Your task to perform on an android device: Search for Mexican restaurants on Maps Image 0: 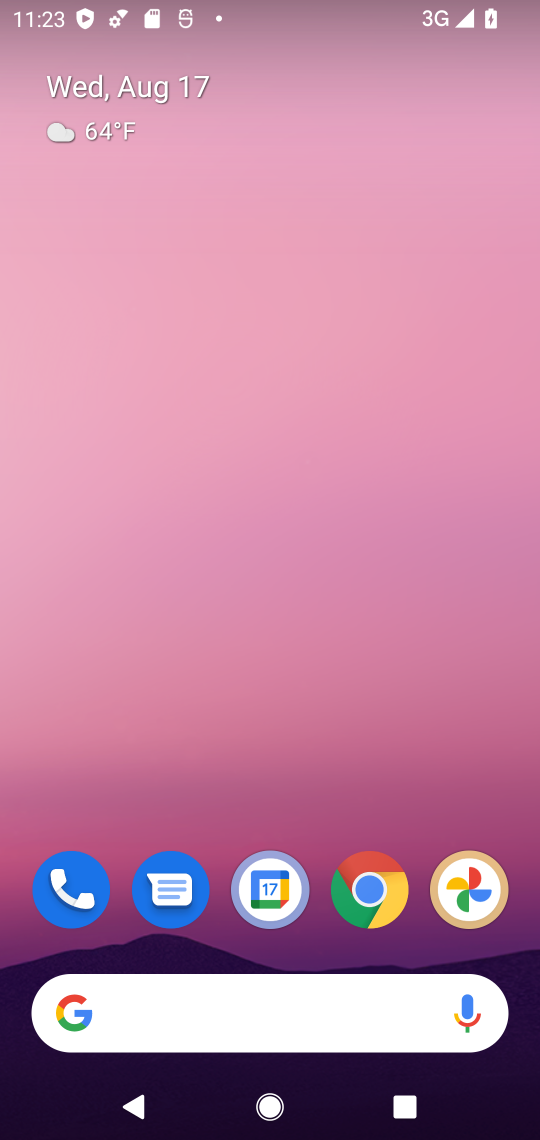
Step 0: drag from (323, 719) to (332, 0)
Your task to perform on an android device: Search for Mexican restaurants on Maps Image 1: 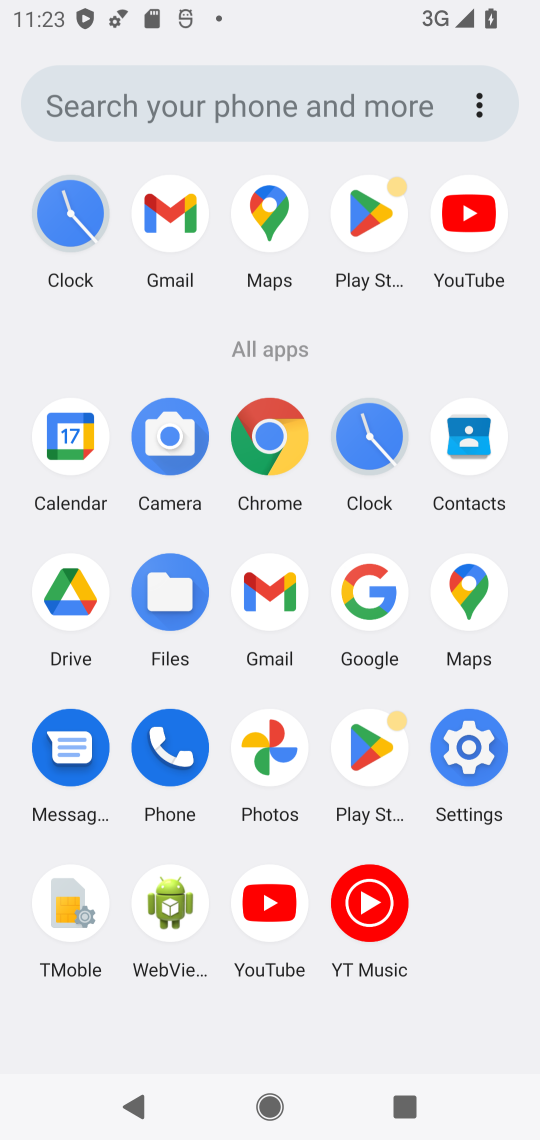
Step 1: click (268, 196)
Your task to perform on an android device: Search for Mexican restaurants on Maps Image 2: 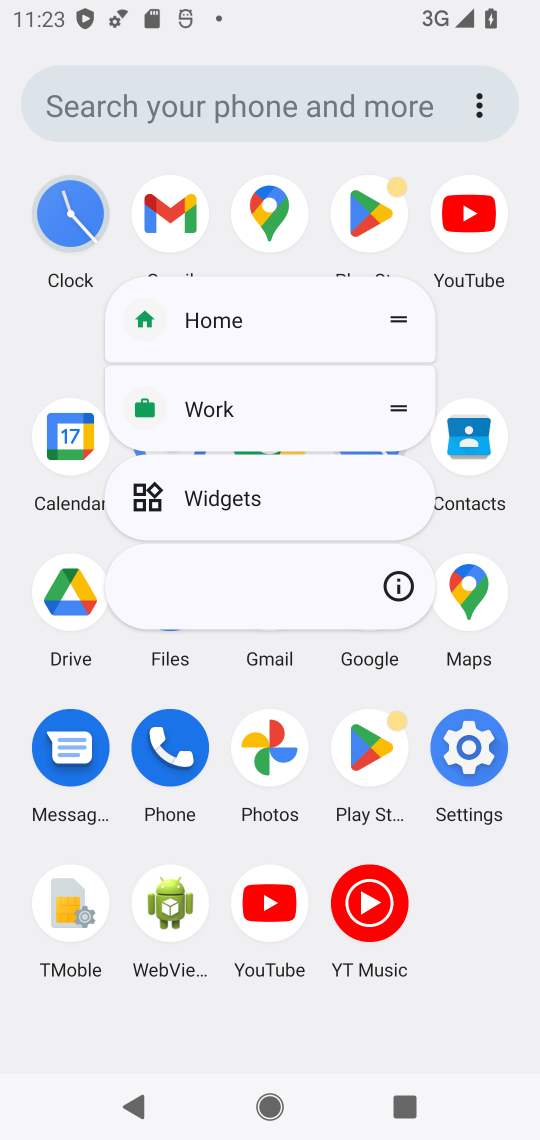
Step 2: click (268, 198)
Your task to perform on an android device: Search for Mexican restaurants on Maps Image 3: 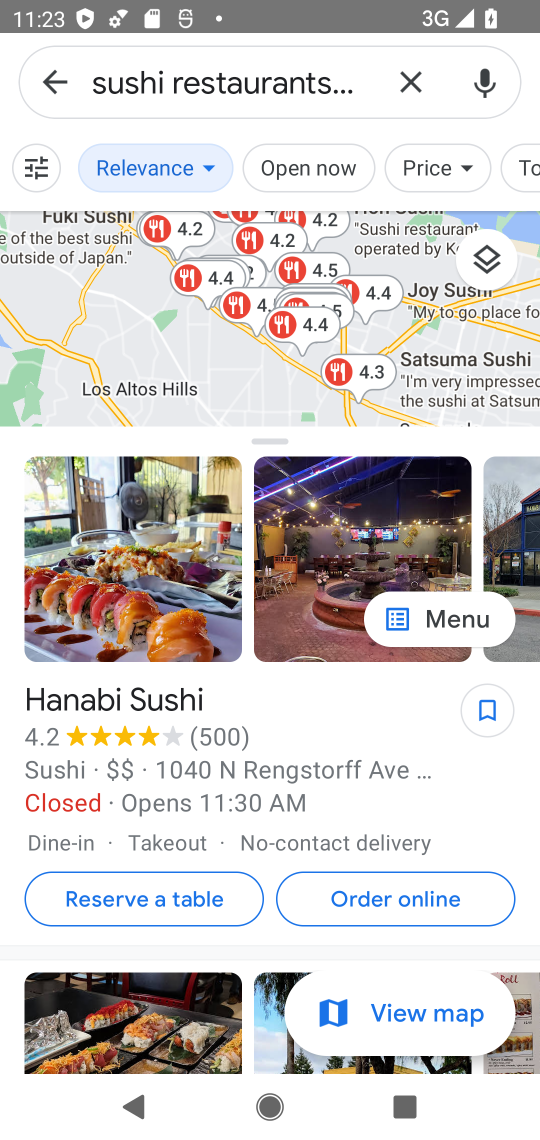
Step 3: click (409, 80)
Your task to perform on an android device: Search for Mexican restaurants on Maps Image 4: 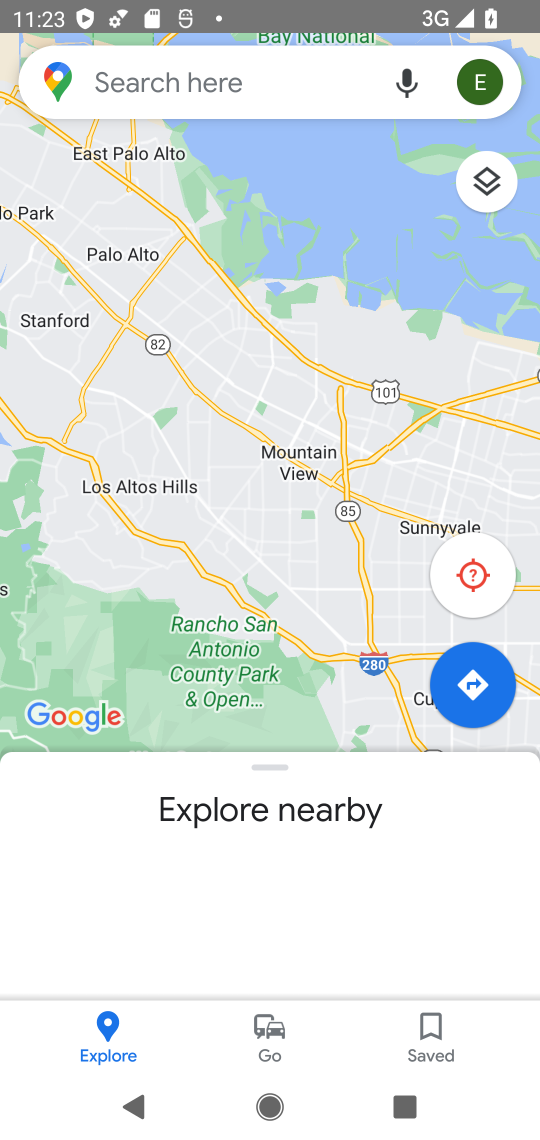
Step 4: click (343, 80)
Your task to perform on an android device: Search for Mexican restaurants on Maps Image 5: 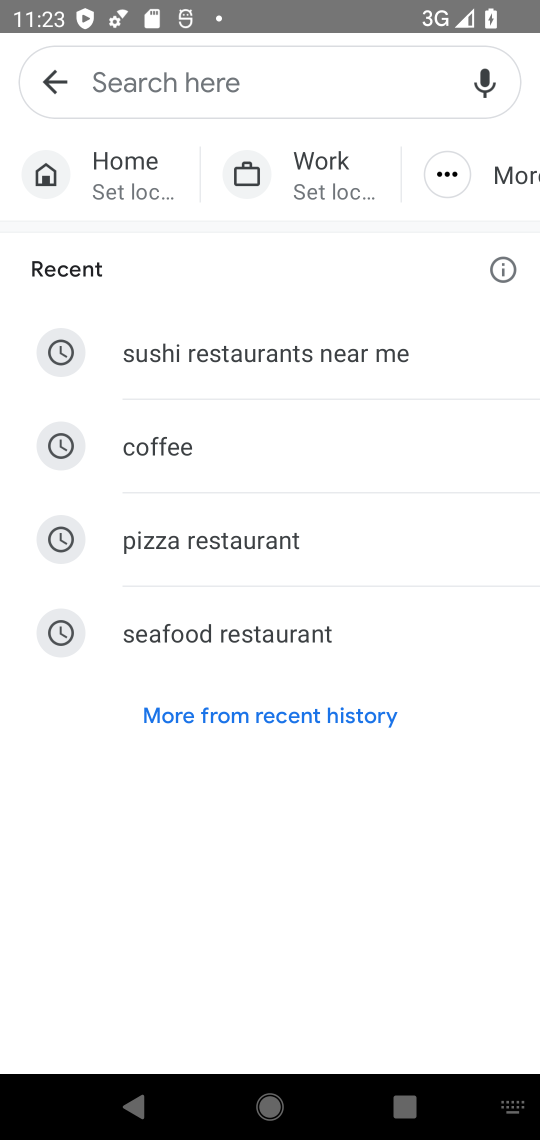
Step 5: type "mexican restaurants"
Your task to perform on an android device: Search for Mexican restaurants on Maps Image 6: 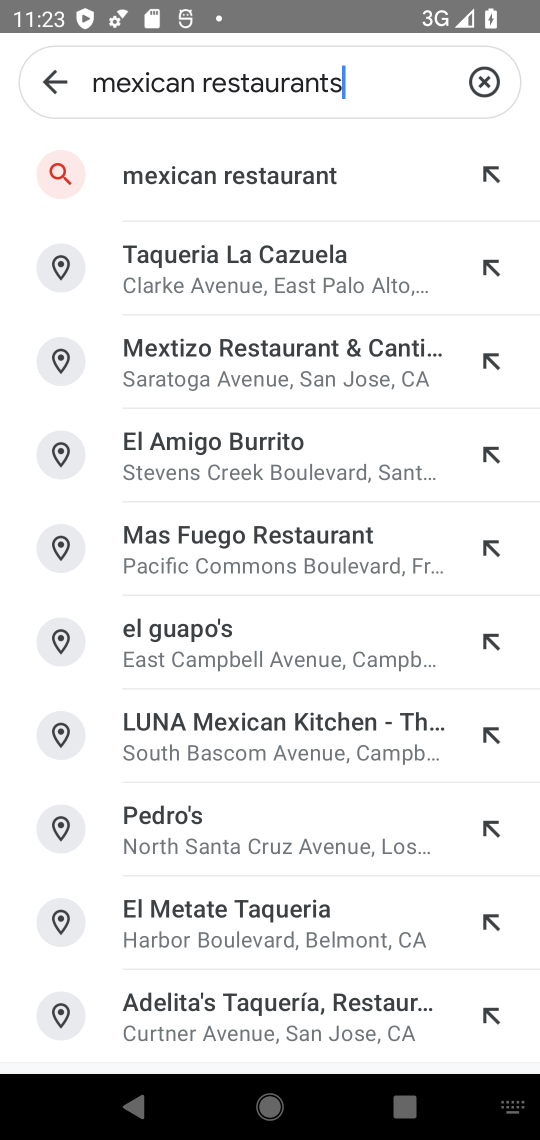
Step 6: click (290, 175)
Your task to perform on an android device: Search for Mexican restaurants on Maps Image 7: 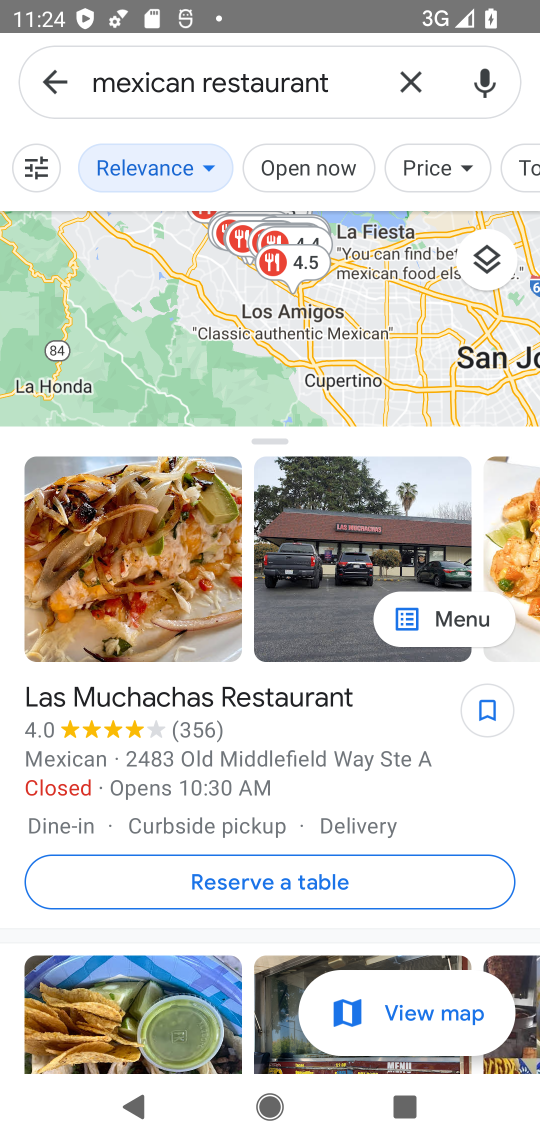
Step 7: task complete